Your task to perform on an android device: delete browsing data in the chrome app Image 0: 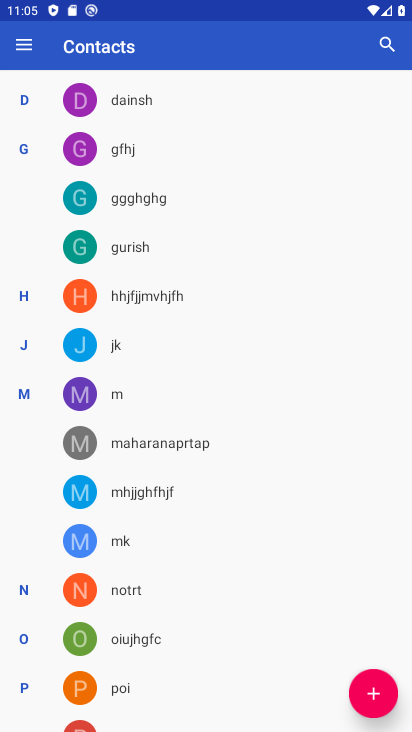
Step 0: press home button
Your task to perform on an android device: delete browsing data in the chrome app Image 1: 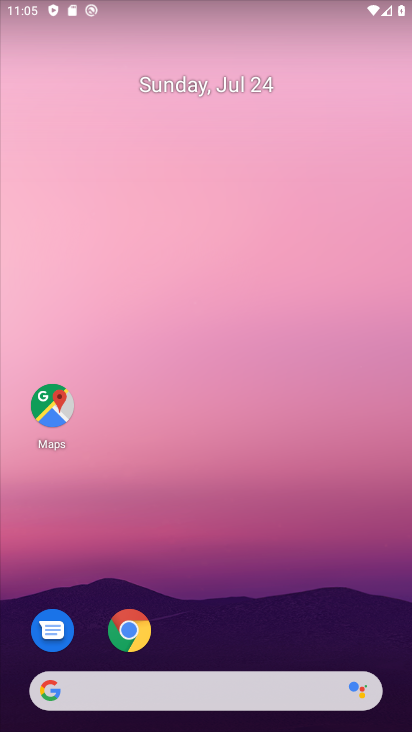
Step 1: click (134, 618)
Your task to perform on an android device: delete browsing data in the chrome app Image 2: 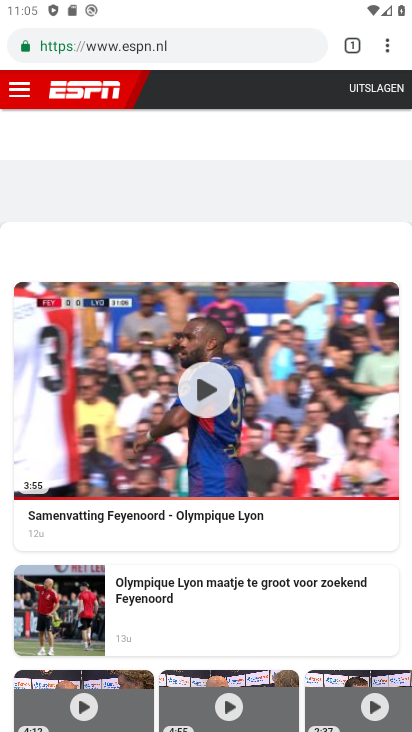
Step 2: click (389, 38)
Your task to perform on an android device: delete browsing data in the chrome app Image 3: 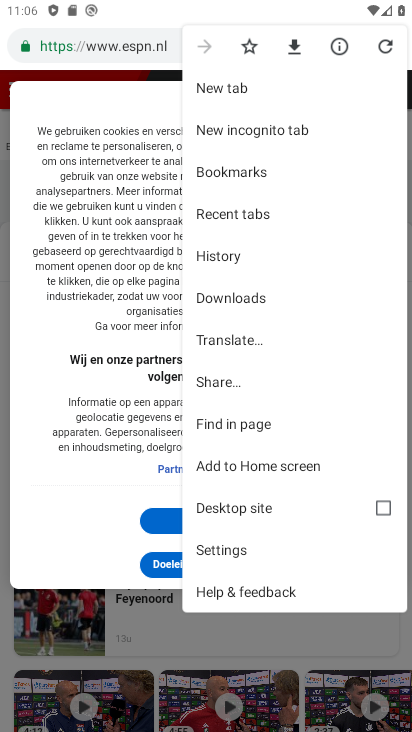
Step 3: click (251, 261)
Your task to perform on an android device: delete browsing data in the chrome app Image 4: 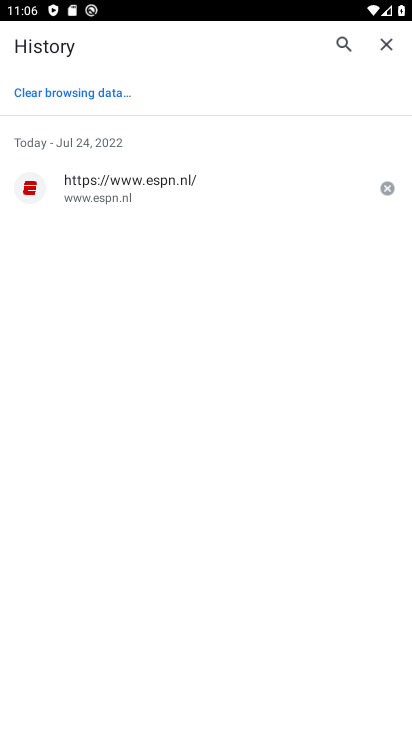
Step 4: click (87, 92)
Your task to perform on an android device: delete browsing data in the chrome app Image 5: 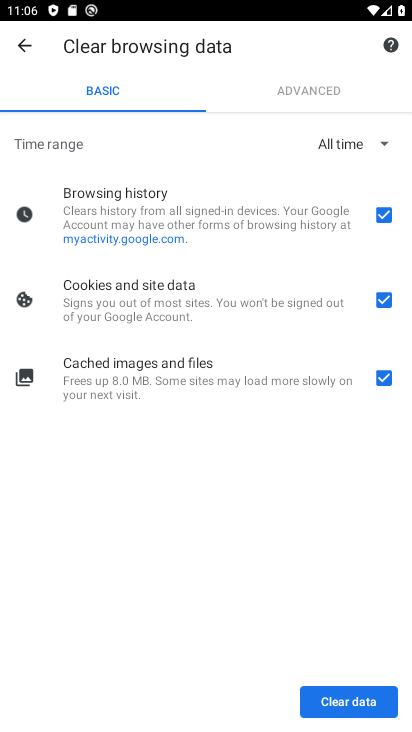
Step 5: click (334, 703)
Your task to perform on an android device: delete browsing data in the chrome app Image 6: 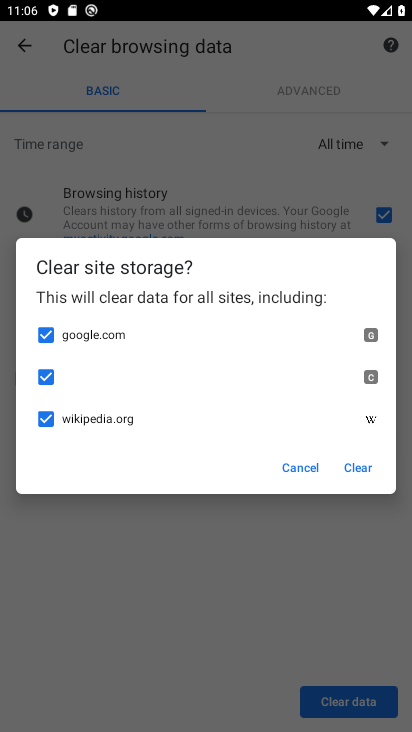
Step 6: click (355, 465)
Your task to perform on an android device: delete browsing data in the chrome app Image 7: 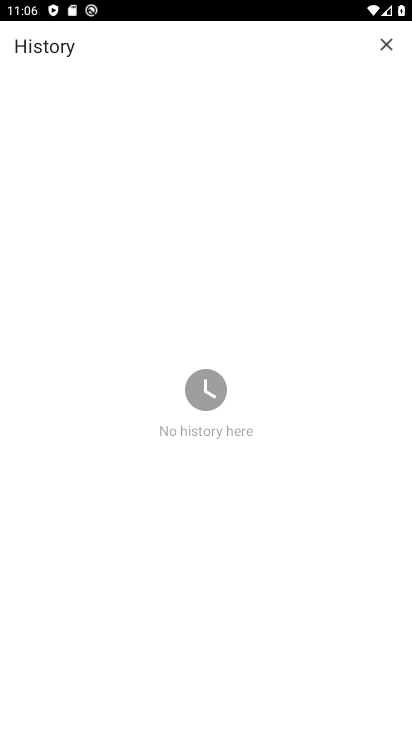
Step 7: task complete